Your task to perform on an android device: Go to sound settings Image 0: 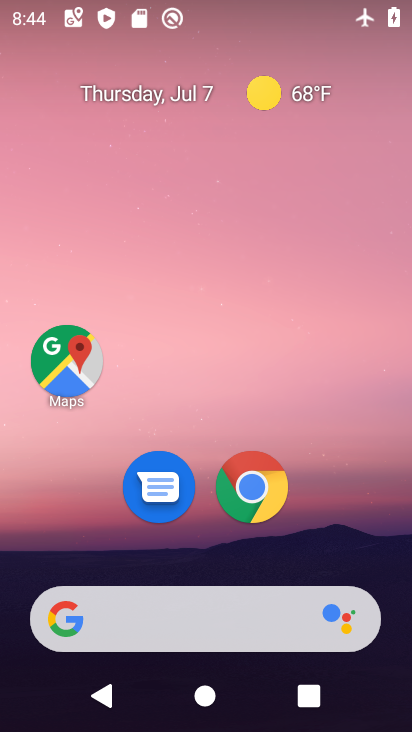
Step 0: drag from (197, 557) to (112, 10)
Your task to perform on an android device: Go to sound settings Image 1: 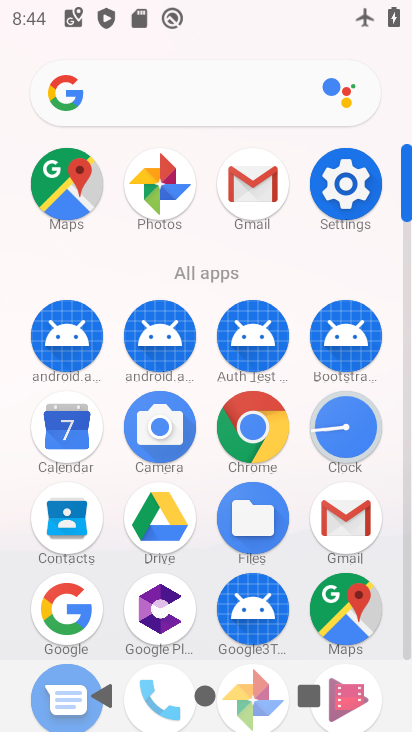
Step 1: click (350, 182)
Your task to perform on an android device: Go to sound settings Image 2: 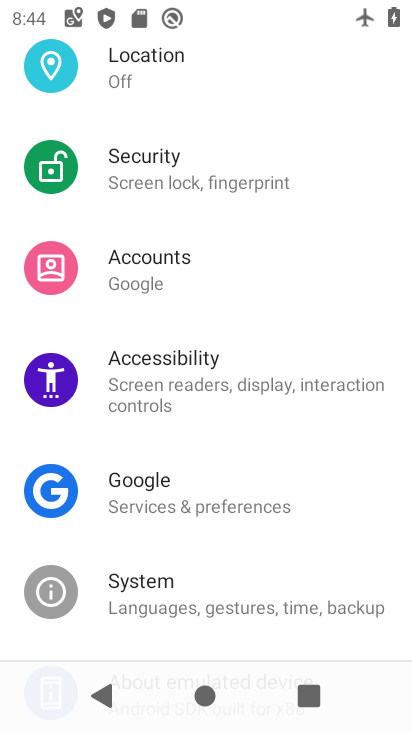
Step 2: drag from (186, 123) to (220, 512)
Your task to perform on an android device: Go to sound settings Image 3: 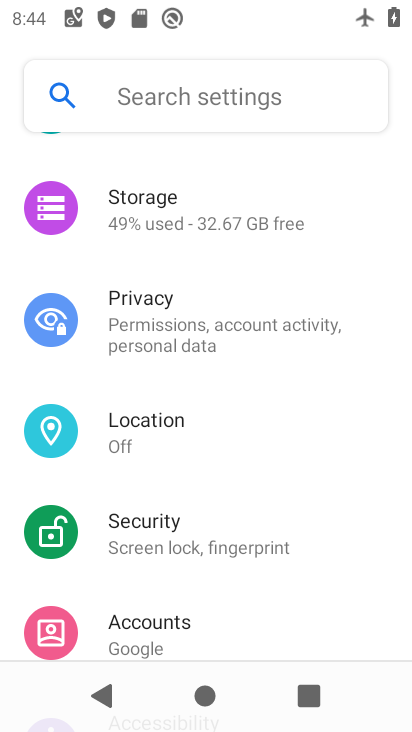
Step 3: drag from (190, 195) to (189, 576)
Your task to perform on an android device: Go to sound settings Image 4: 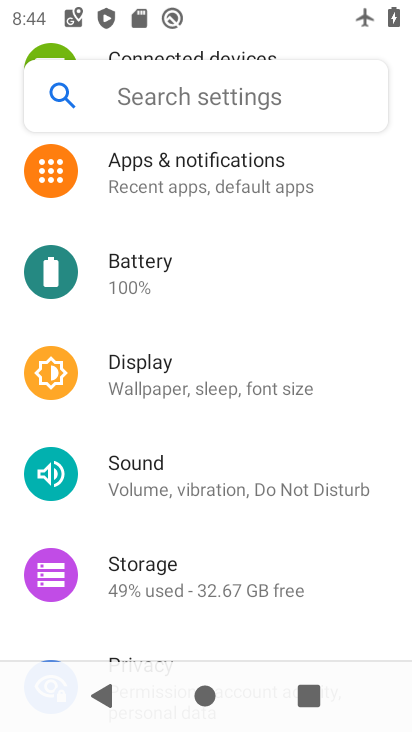
Step 4: click (194, 484)
Your task to perform on an android device: Go to sound settings Image 5: 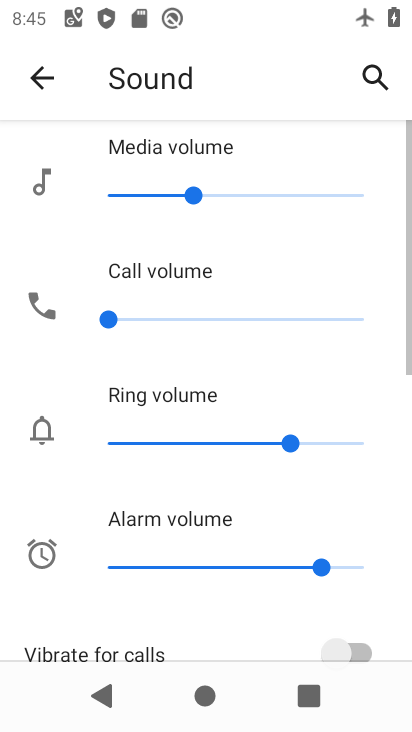
Step 5: drag from (225, 558) to (198, 38)
Your task to perform on an android device: Go to sound settings Image 6: 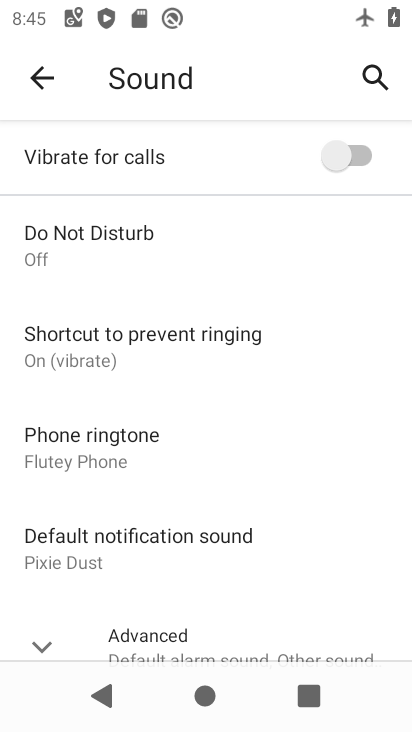
Step 6: drag from (260, 428) to (245, 143)
Your task to perform on an android device: Go to sound settings Image 7: 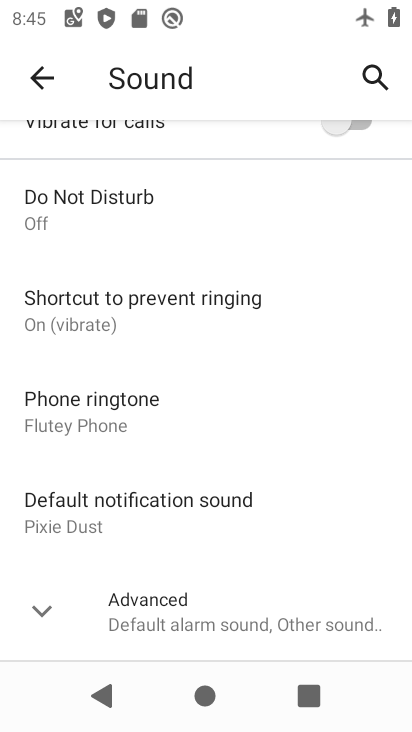
Step 7: click (203, 610)
Your task to perform on an android device: Go to sound settings Image 8: 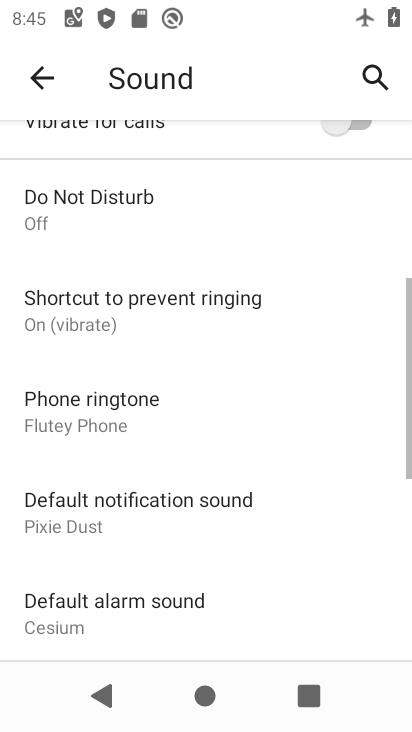
Step 8: task complete